Your task to perform on an android device: Set the phone to "Do not disturb". Image 0: 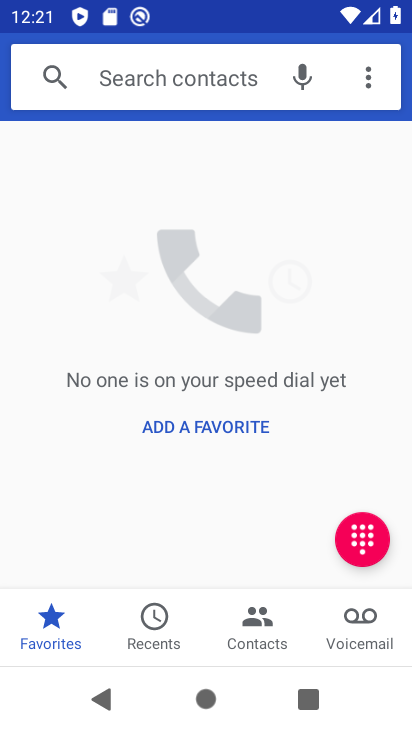
Step 0: press home button
Your task to perform on an android device: Set the phone to "Do not disturb". Image 1: 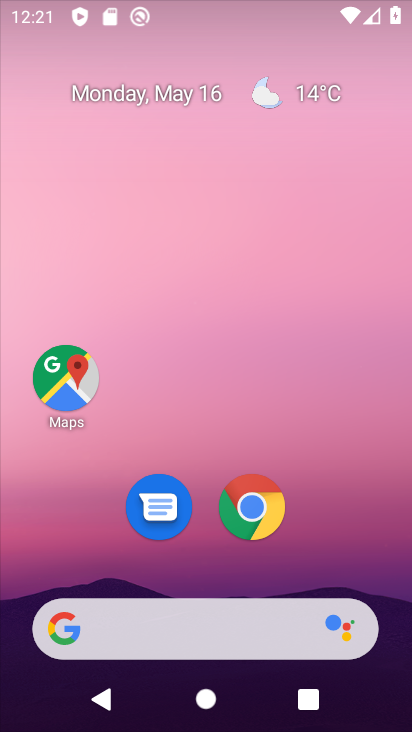
Step 1: drag from (307, 561) to (336, 98)
Your task to perform on an android device: Set the phone to "Do not disturb". Image 2: 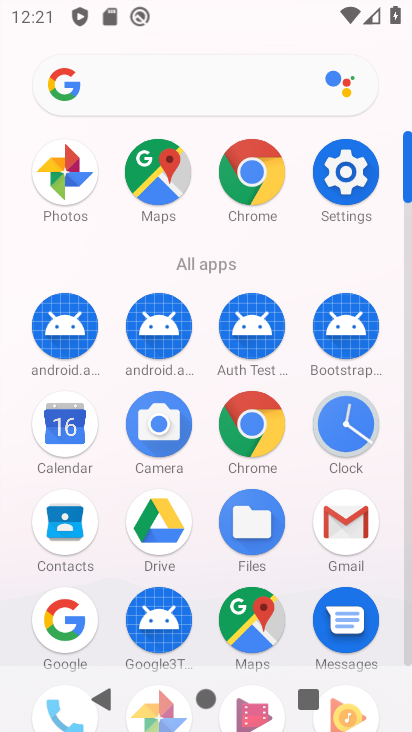
Step 2: click (362, 168)
Your task to perform on an android device: Set the phone to "Do not disturb". Image 3: 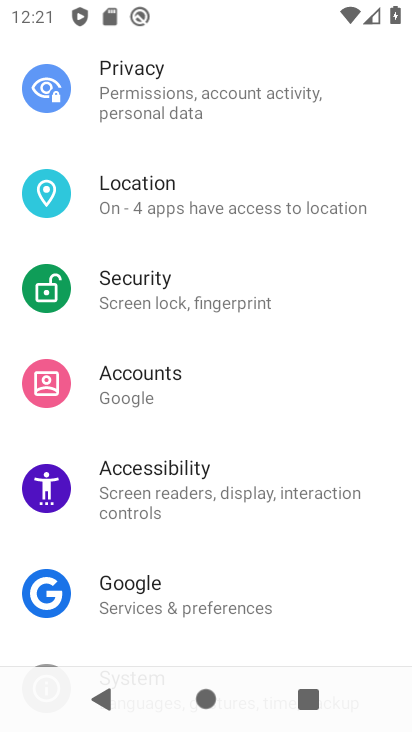
Step 3: drag from (296, 539) to (348, 238)
Your task to perform on an android device: Set the phone to "Do not disturb". Image 4: 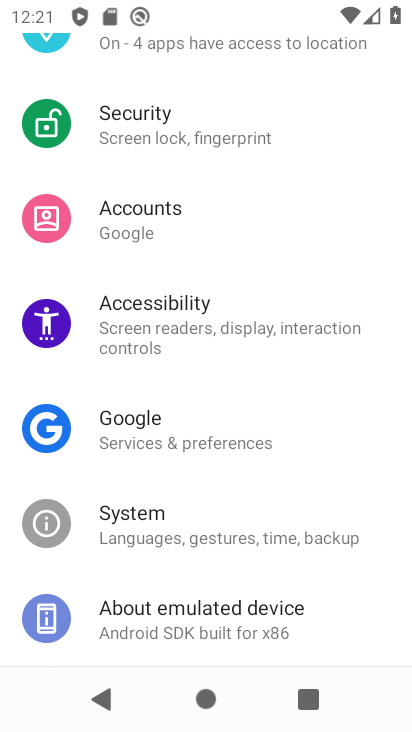
Step 4: drag from (285, 538) to (322, 571)
Your task to perform on an android device: Set the phone to "Do not disturb". Image 5: 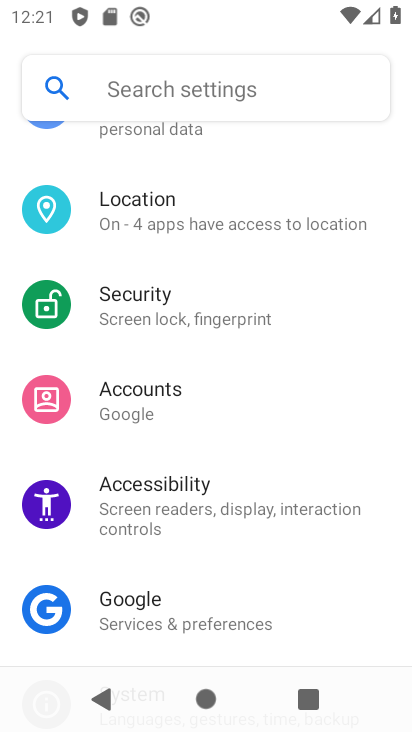
Step 5: drag from (251, 285) to (251, 636)
Your task to perform on an android device: Set the phone to "Do not disturb". Image 6: 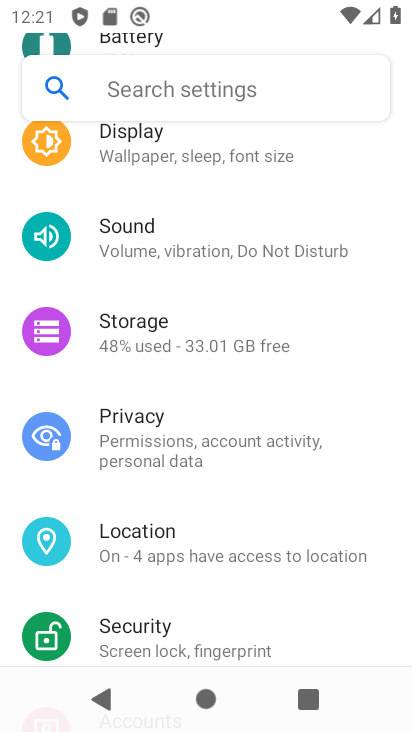
Step 6: click (204, 250)
Your task to perform on an android device: Set the phone to "Do not disturb". Image 7: 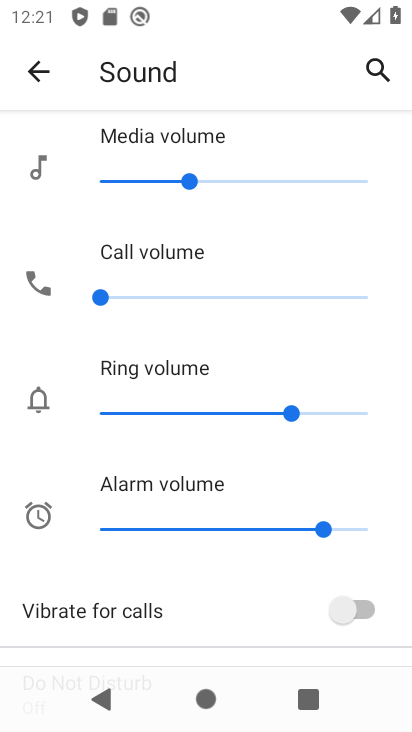
Step 7: drag from (237, 555) to (260, 131)
Your task to perform on an android device: Set the phone to "Do not disturb". Image 8: 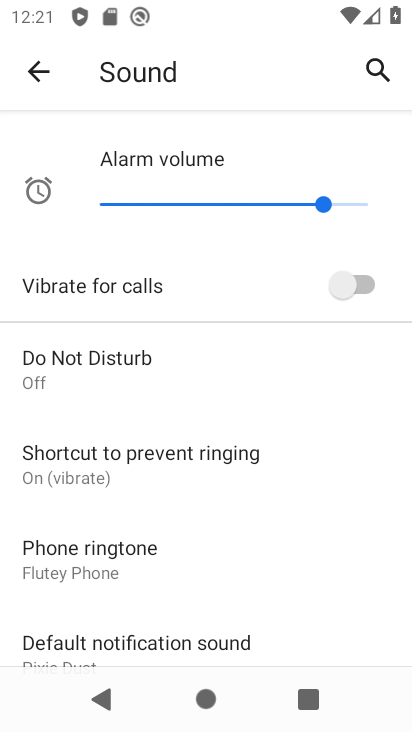
Step 8: click (121, 353)
Your task to perform on an android device: Set the phone to "Do not disturb". Image 9: 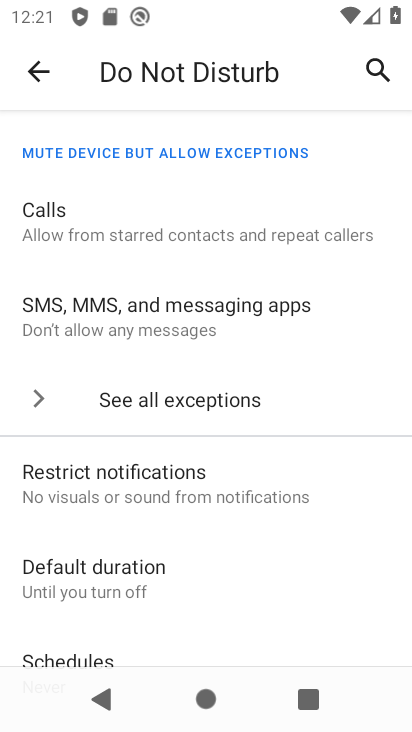
Step 9: drag from (248, 543) to (251, 191)
Your task to perform on an android device: Set the phone to "Do not disturb". Image 10: 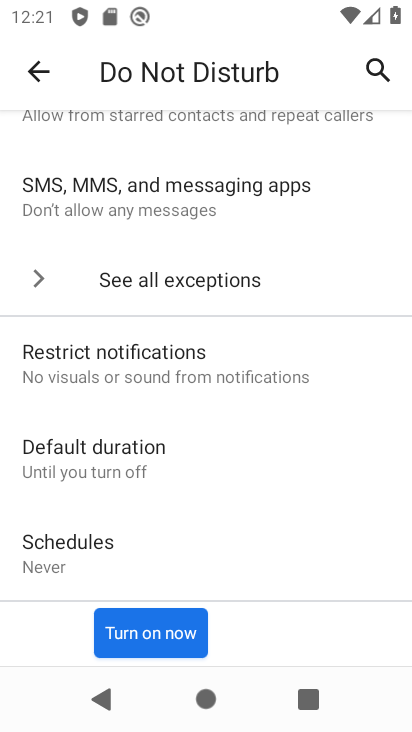
Step 10: click (179, 628)
Your task to perform on an android device: Set the phone to "Do not disturb". Image 11: 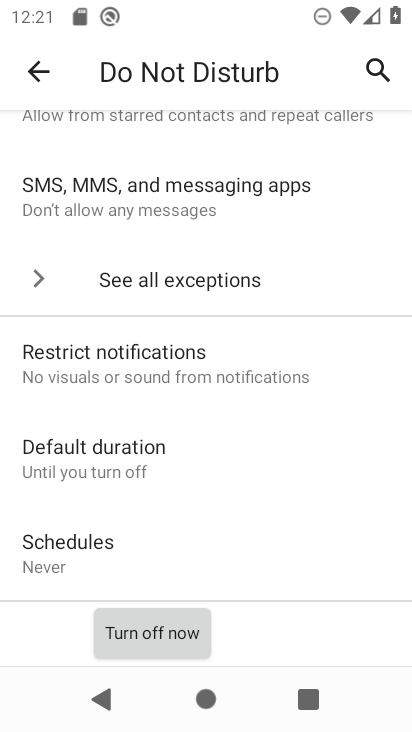
Step 11: task complete